Your task to perform on an android device: Open the web browser Image 0: 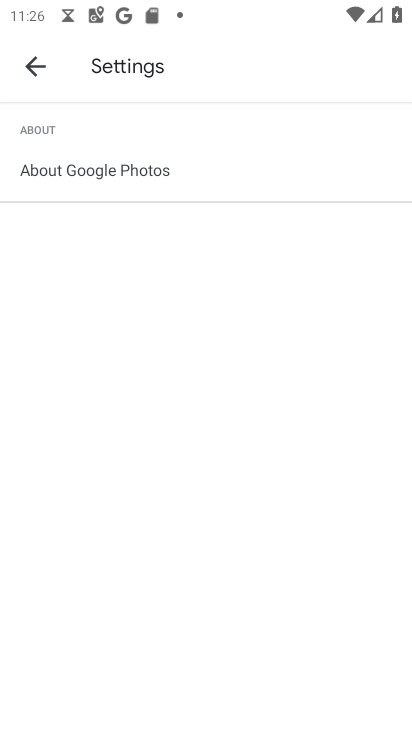
Step 0: press home button
Your task to perform on an android device: Open the web browser Image 1: 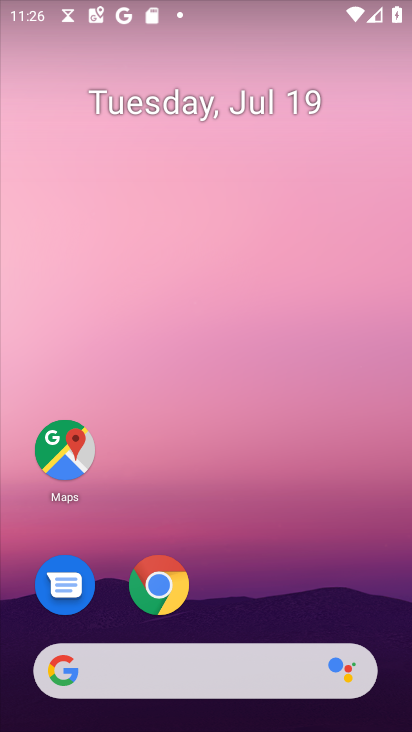
Step 1: click (151, 585)
Your task to perform on an android device: Open the web browser Image 2: 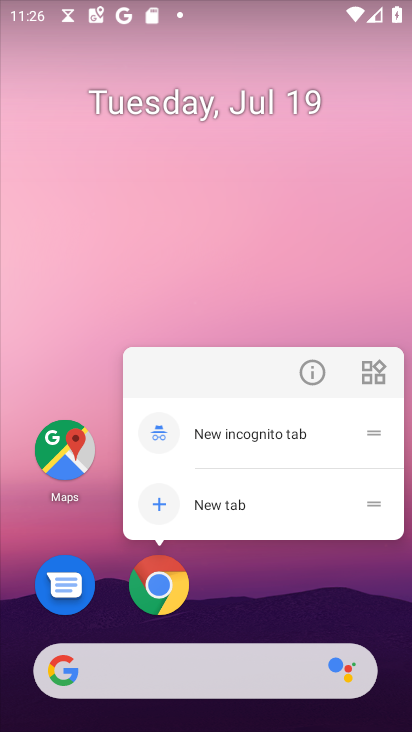
Step 2: click (163, 587)
Your task to perform on an android device: Open the web browser Image 3: 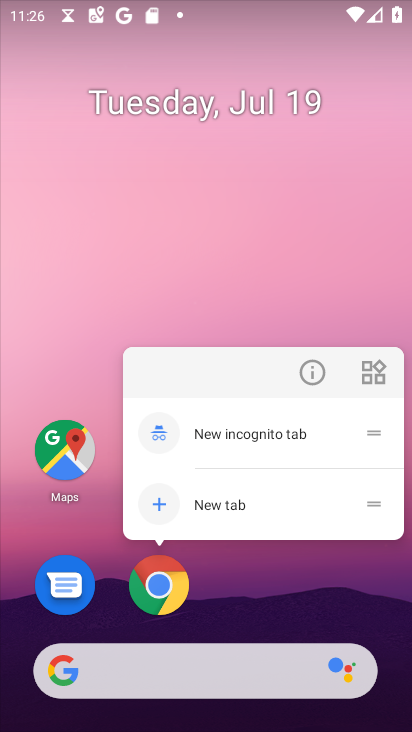
Step 3: click (157, 582)
Your task to perform on an android device: Open the web browser Image 4: 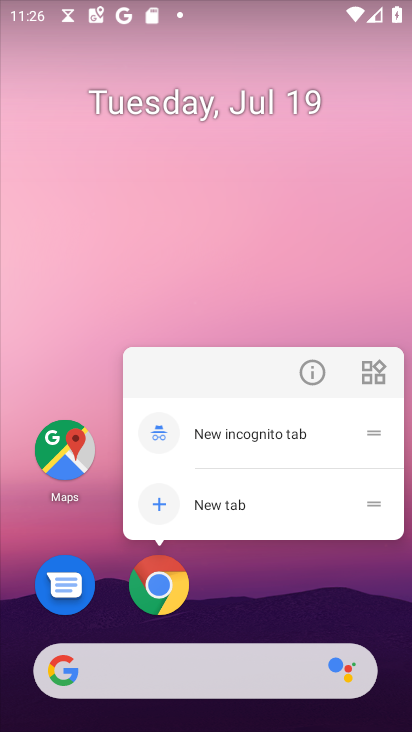
Step 4: click (155, 586)
Your task to perform on an android device: Open the web browser Image 5: 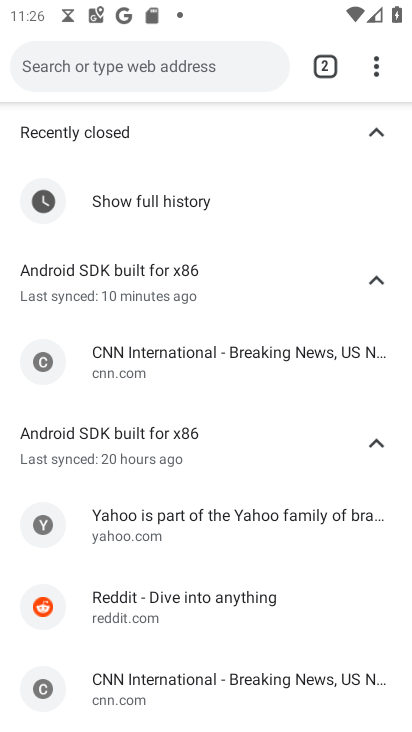
Step 5: task complete